Your task to perform on an android device: set the timer Image 0: 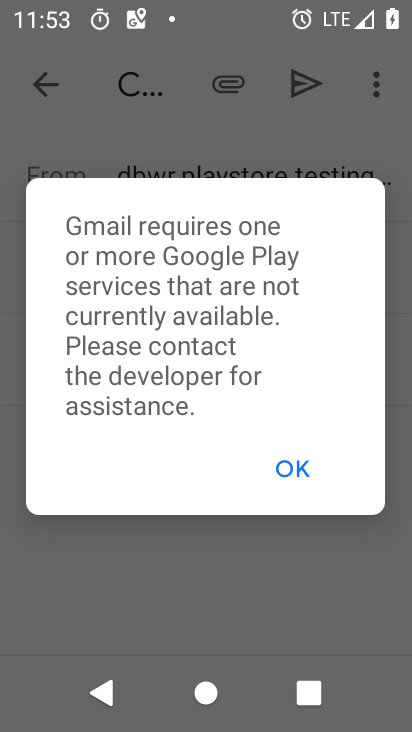
Step 0: press back button
Your task to perform on an android device: set the timer Image 1: 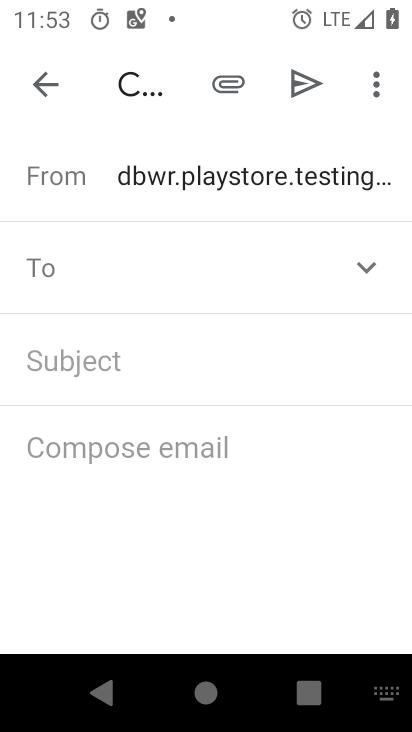
Step 1: press home button
Your task to perform on an android device: set the timer Image 2: 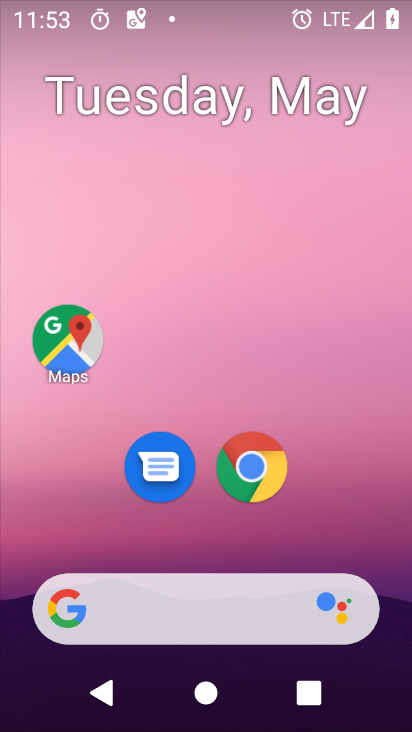
Step 2: drag from (336, 502) to (255, 61)
Your task to perform on an android device: set the timer Image 3: 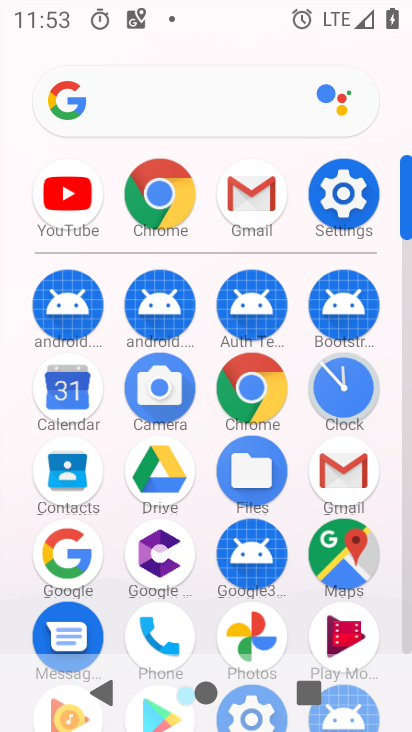
Step 3: click (342, 398)
Your task to perform on an android device: set the timer Image 4: 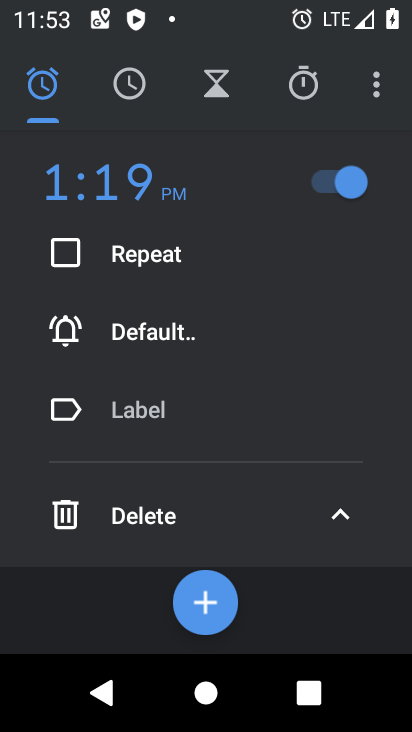
Step 4: drag from (205, 186) to (226, 522)
Your task to perform on an android device: set the timer Image 5: 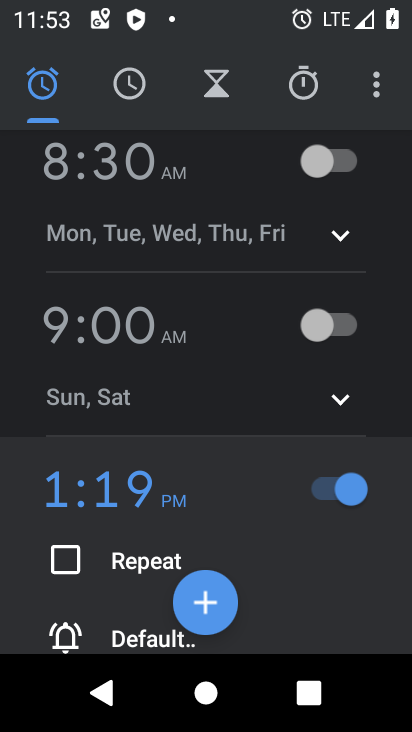
Step 5: drag from (189, 226) to (193, 522)
Your task to perform on an android device: set the timer Image 6: 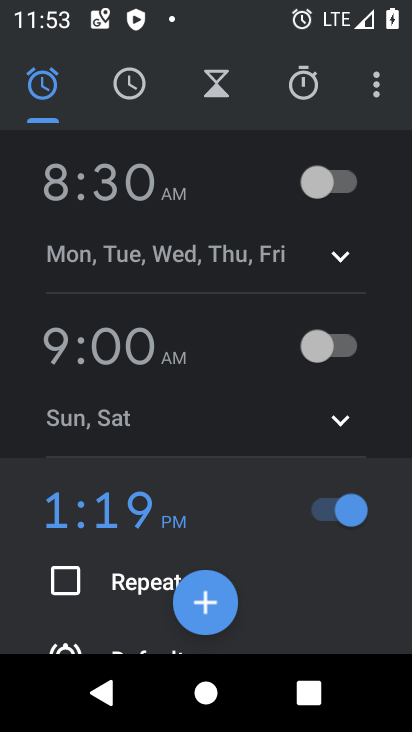
Step 6: click (231, 79)
Your task to perform on an android device: set the timer Image 7: 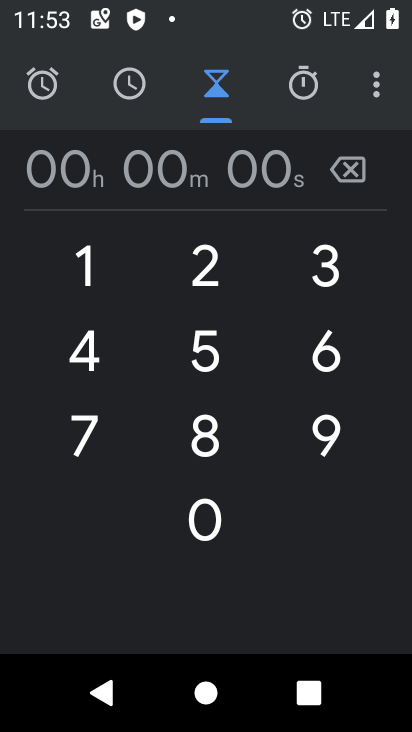
Step 7: click (212, 346)
Your task to perform on an android device: set the timer Image 8: 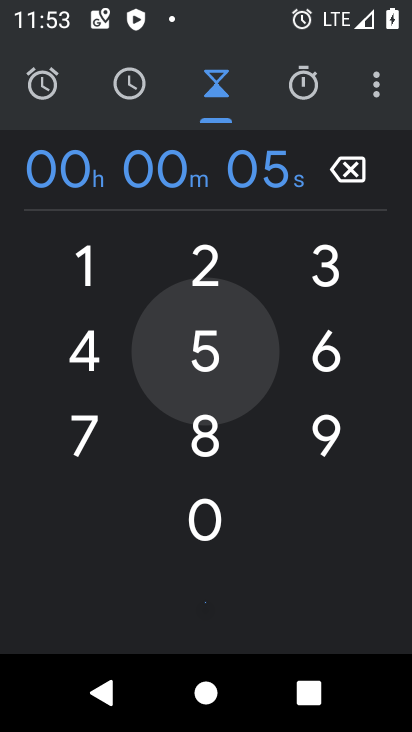
Step 8: click (319, 352)
Your task to perform on an android device: set the timer Image 9: 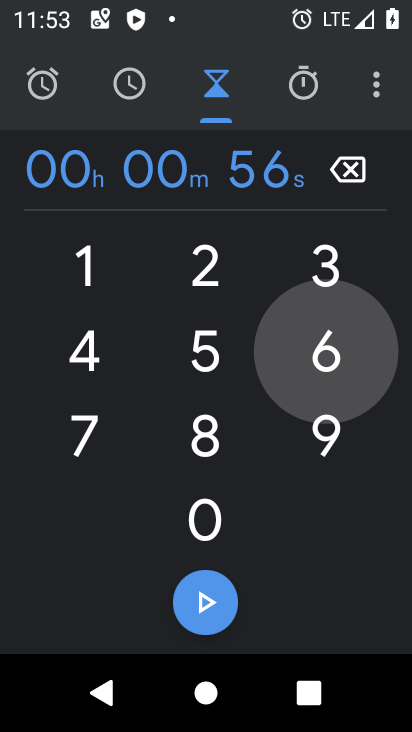
Step 9: click (221, 414)
Your task to perform on an android device: set the timer Image 10: 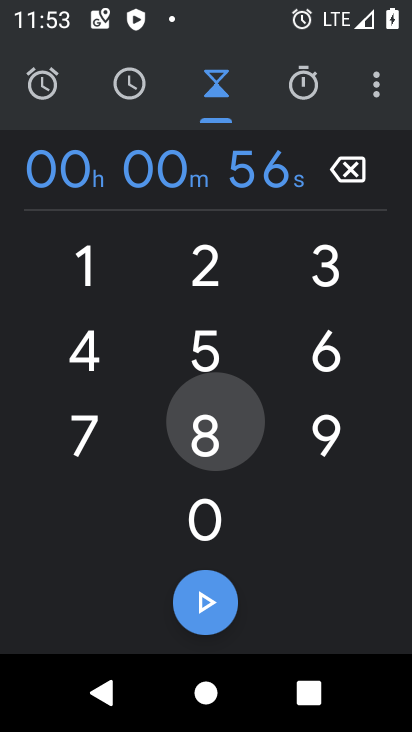
Step 10: click (365, 441)
Your task to perform on an android device: set the timer Image 11: 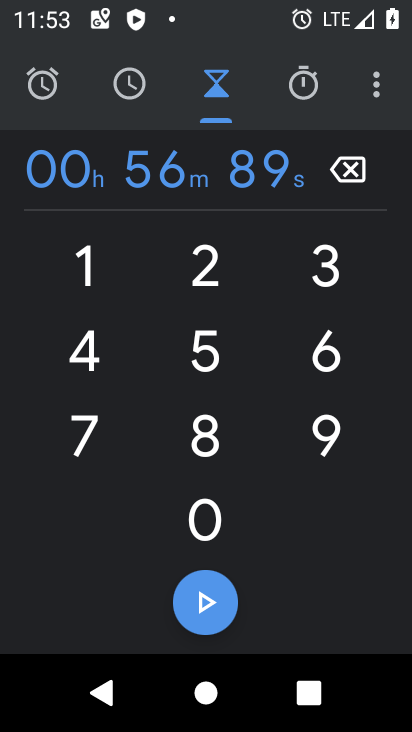
Step 11: click (211, 595)
Your task to perform on an android device: set the timer Image 12: 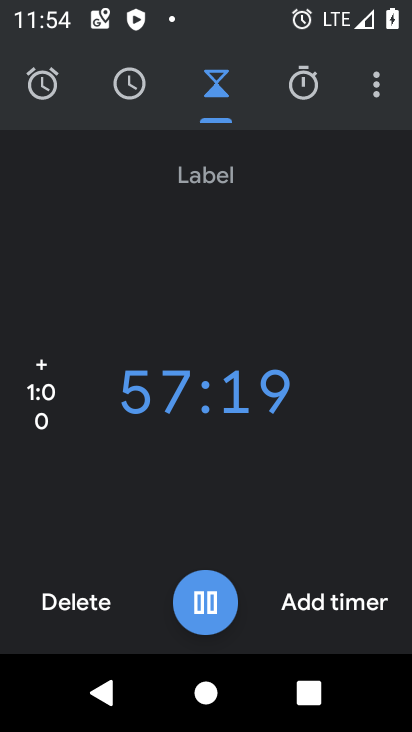
Step 12: task complete